Your task to perform on an android device: turn off translation in the chrome app Image 0: 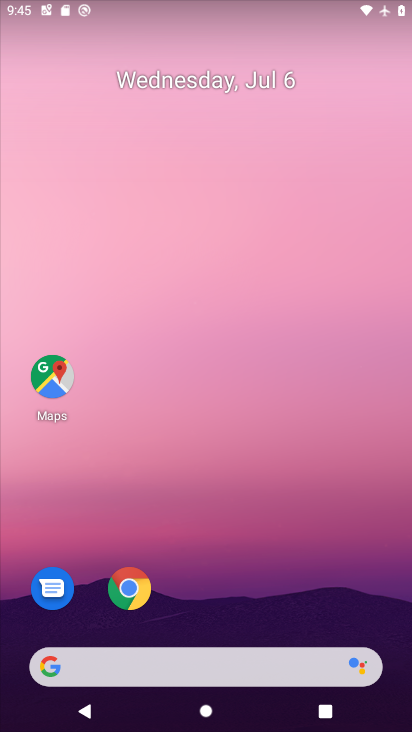
Step 0: click (135, 589)
Your task to perform on an android device: turn off translation in the chrome app Image 1: 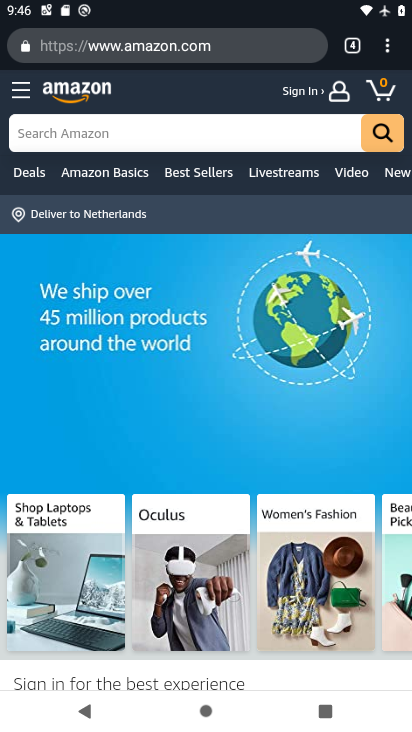
Step 1: click (386, 56)
Your task to perform on an android device: turn off translation in the chrome app Image 2: 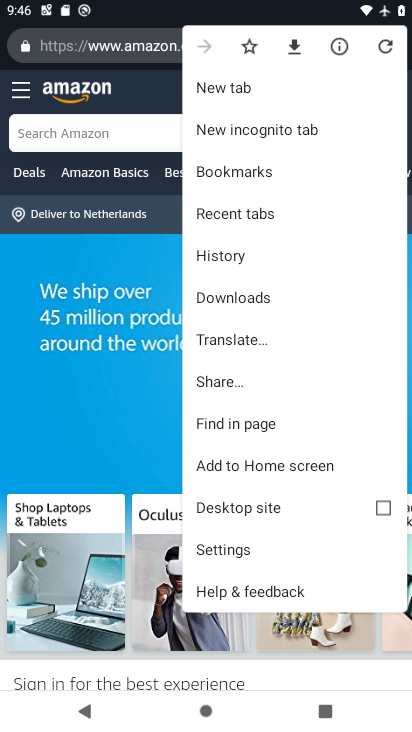
Step 2: click (234, 545)
Your task to perform on an android device: turn off translation in the chrome app Image 3: 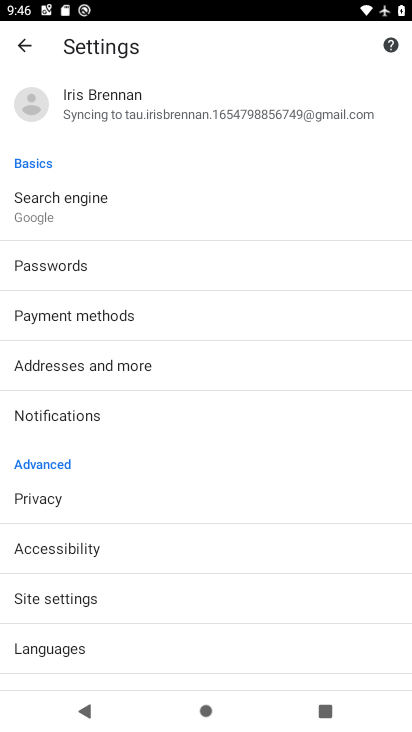
Step 3: drag from (206, 583) to (275, 326)
Your task to perform on an android device: turn off translation in the chrome app Image 4: 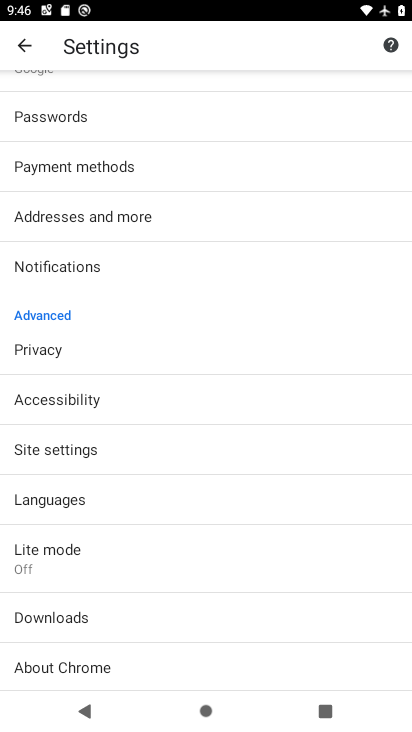
Step 4: click (96, 499)
Your task to perform on an android device: turn off translation in the chrome app Image 5: 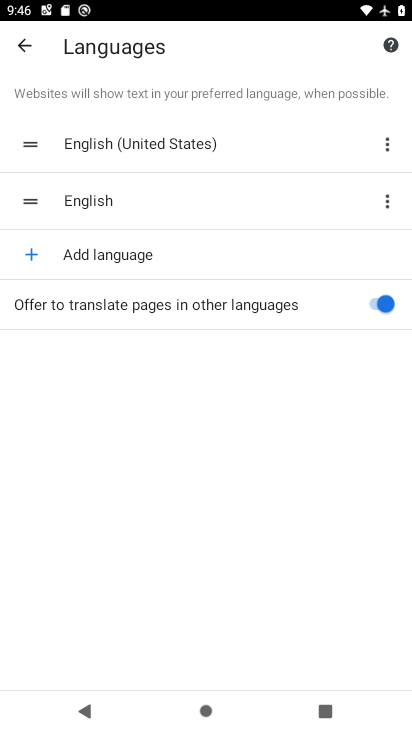
Step 5: click (374, 305)
Your task to perform on an android device: turn off translation in the chrome app Image 6: 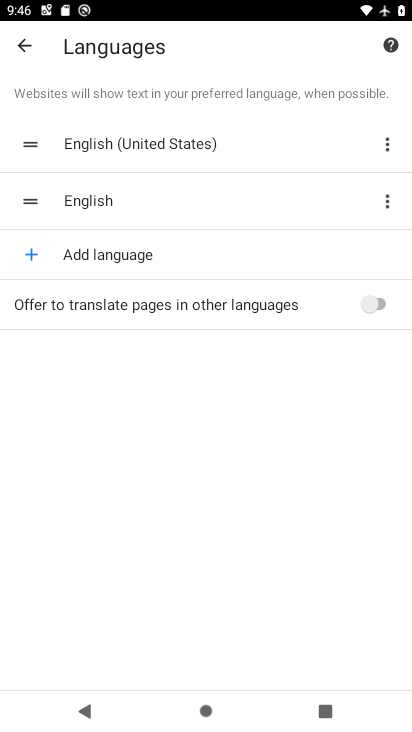
Step 6: task complete